Your task to perform on an android device: turn on sleep mode Image 0: 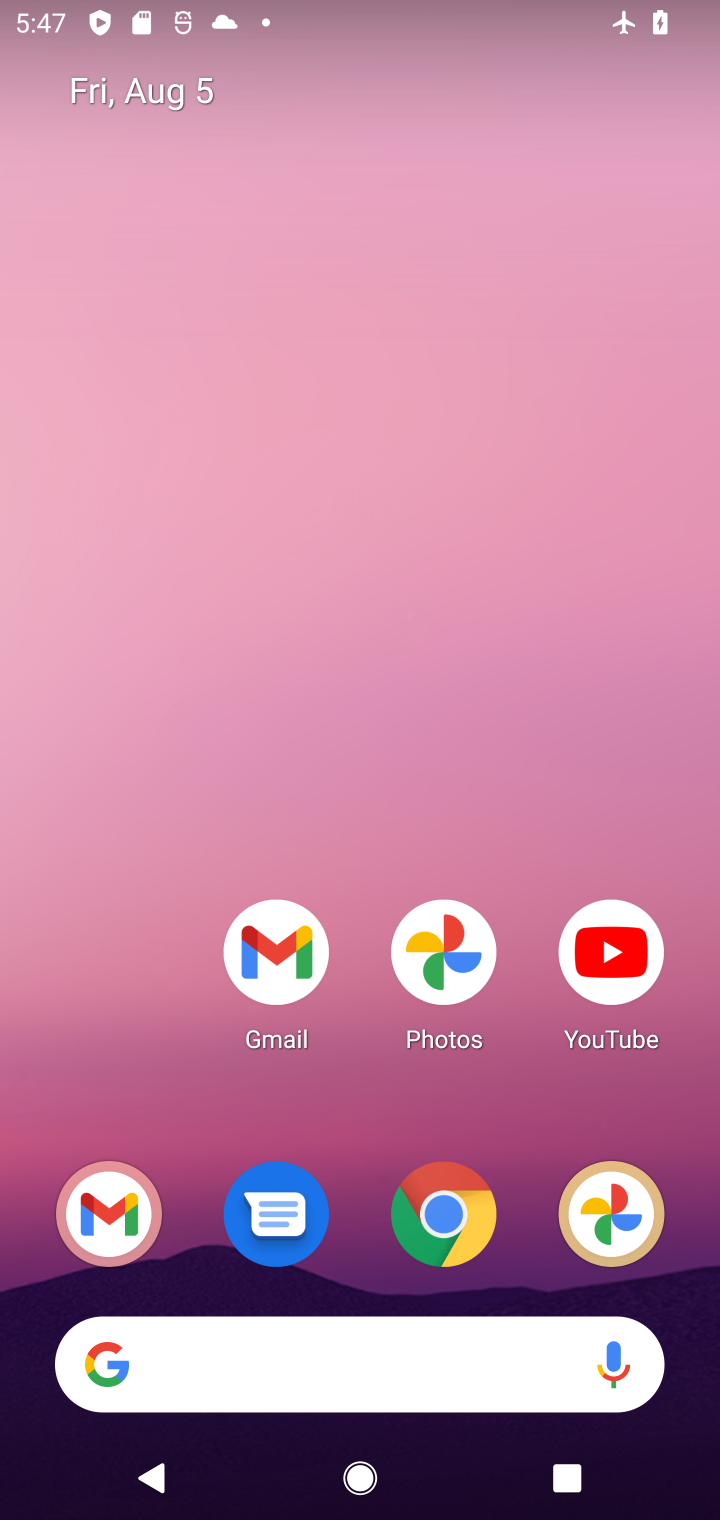
Step 0: drag from (129, 1074) to (357, 20)
Your task to perform on an android device: turn on sleep mode Image 1: 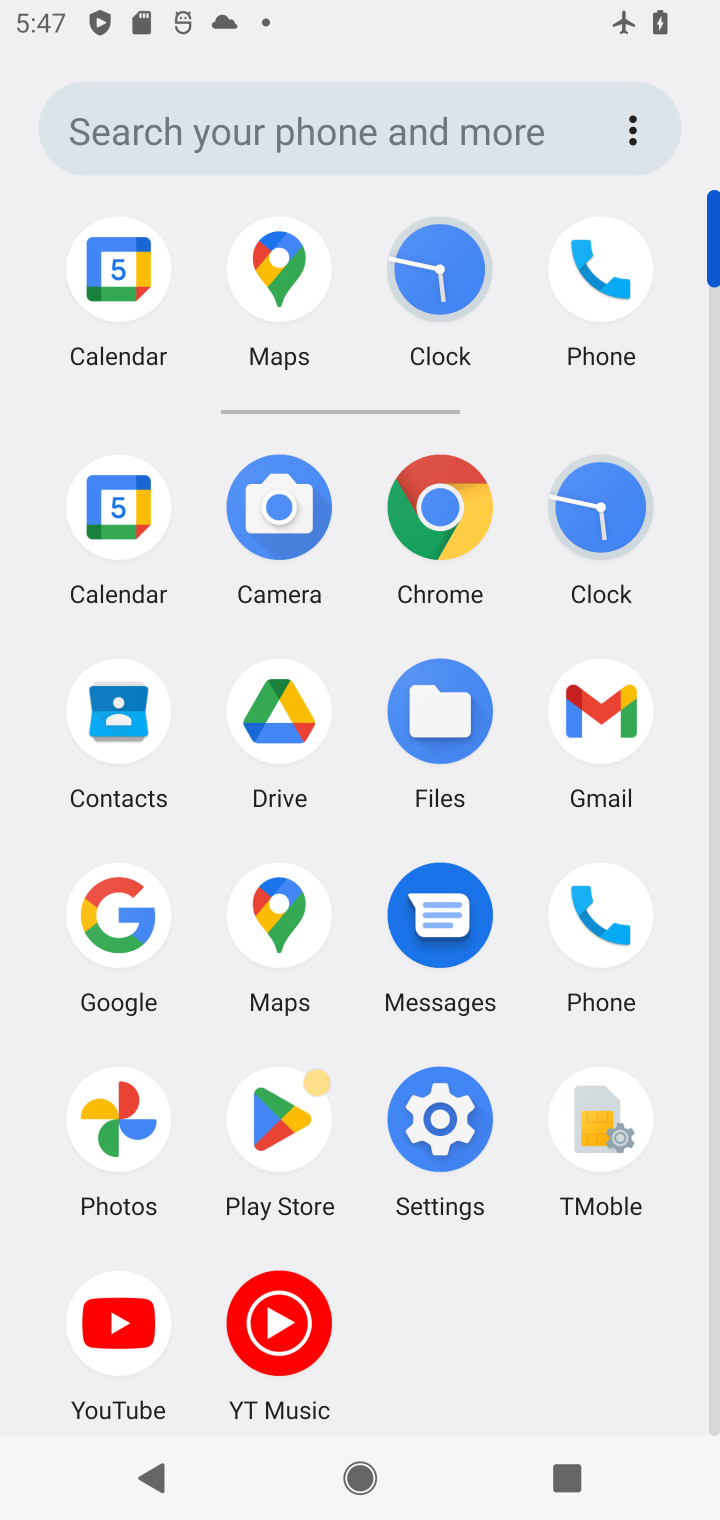
Step 1: click (442, 1101)
Your task to perform on an android device: turn on sleep mode Image 2: 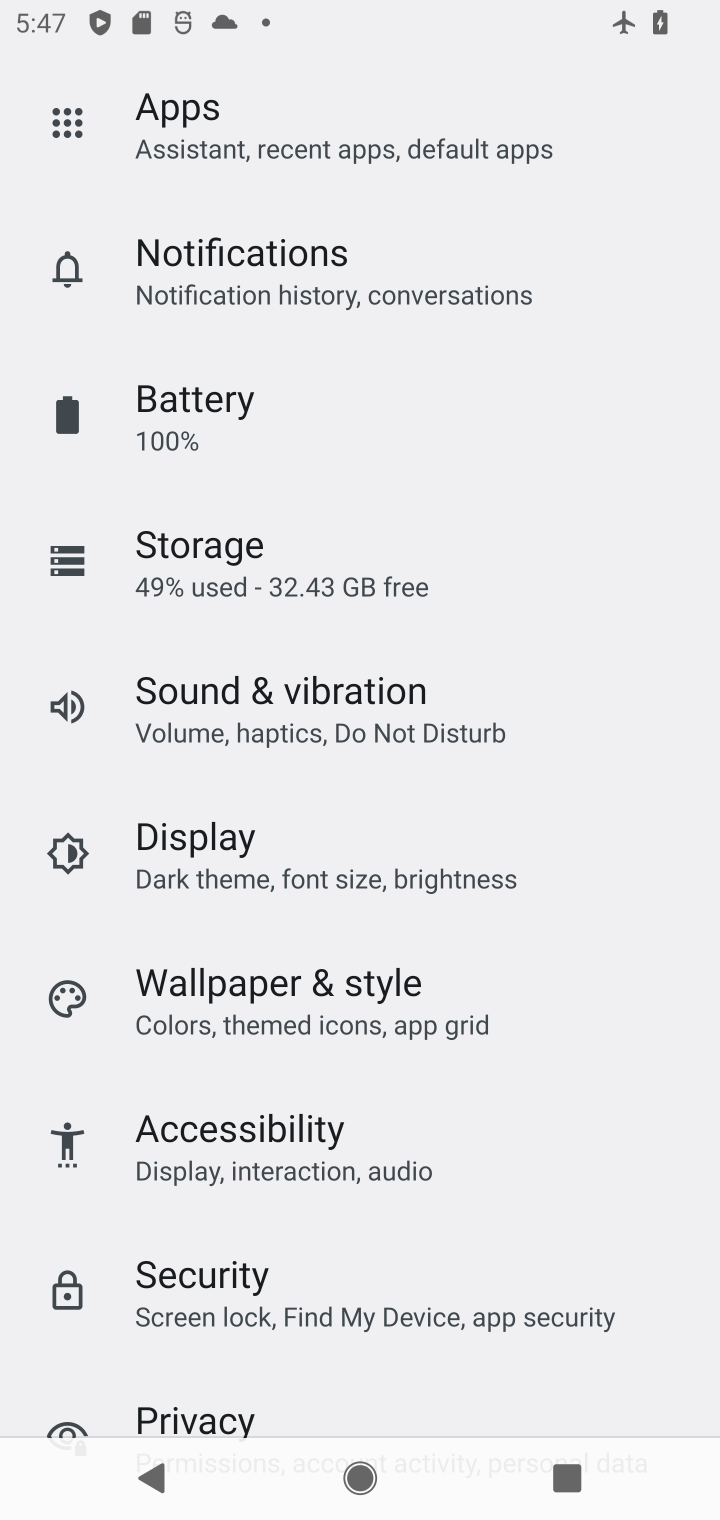
Step 2: click (437, 699)
Your task to perform on an android device: turn on sleep mode Image 3: 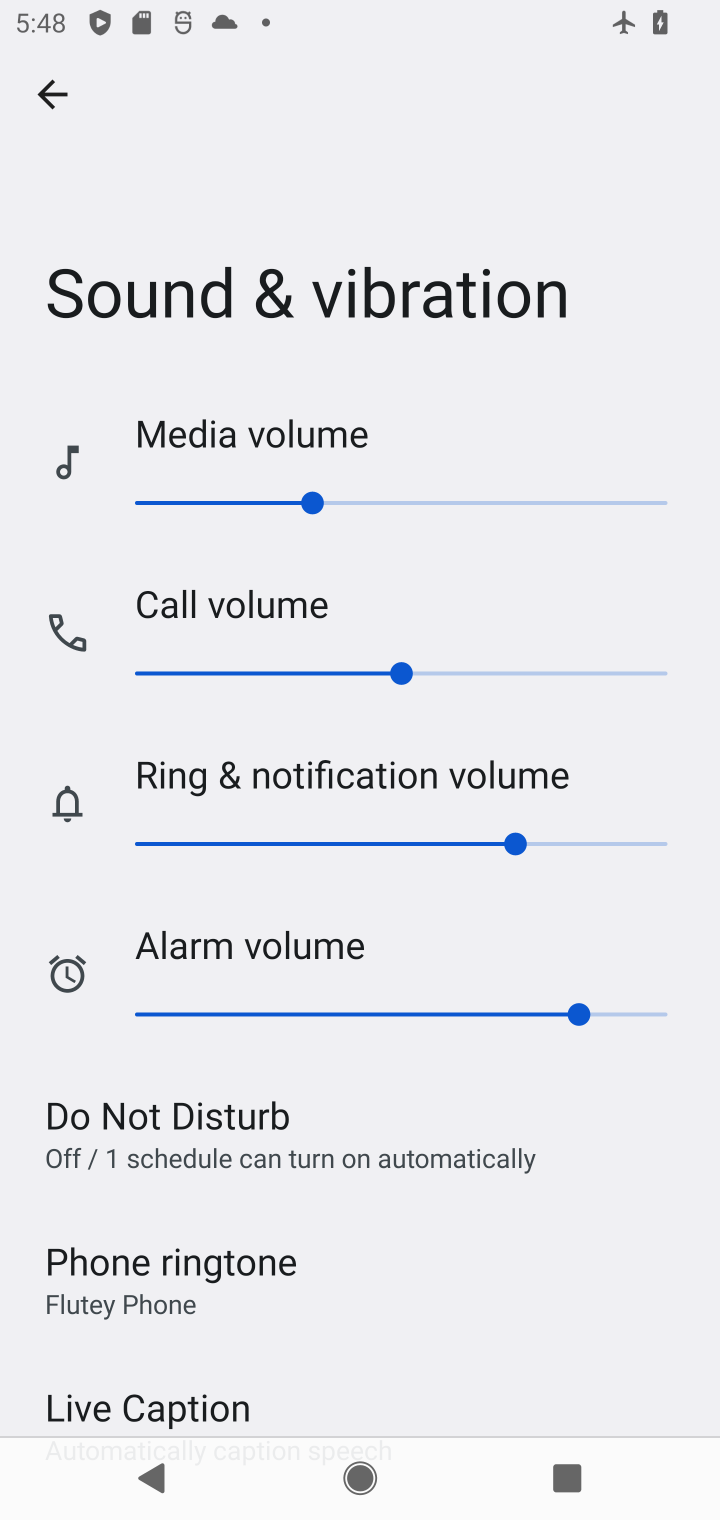
Step 3: click (248, 1142)
Your task to perform on an android device: turn on sleep mode Image 4: 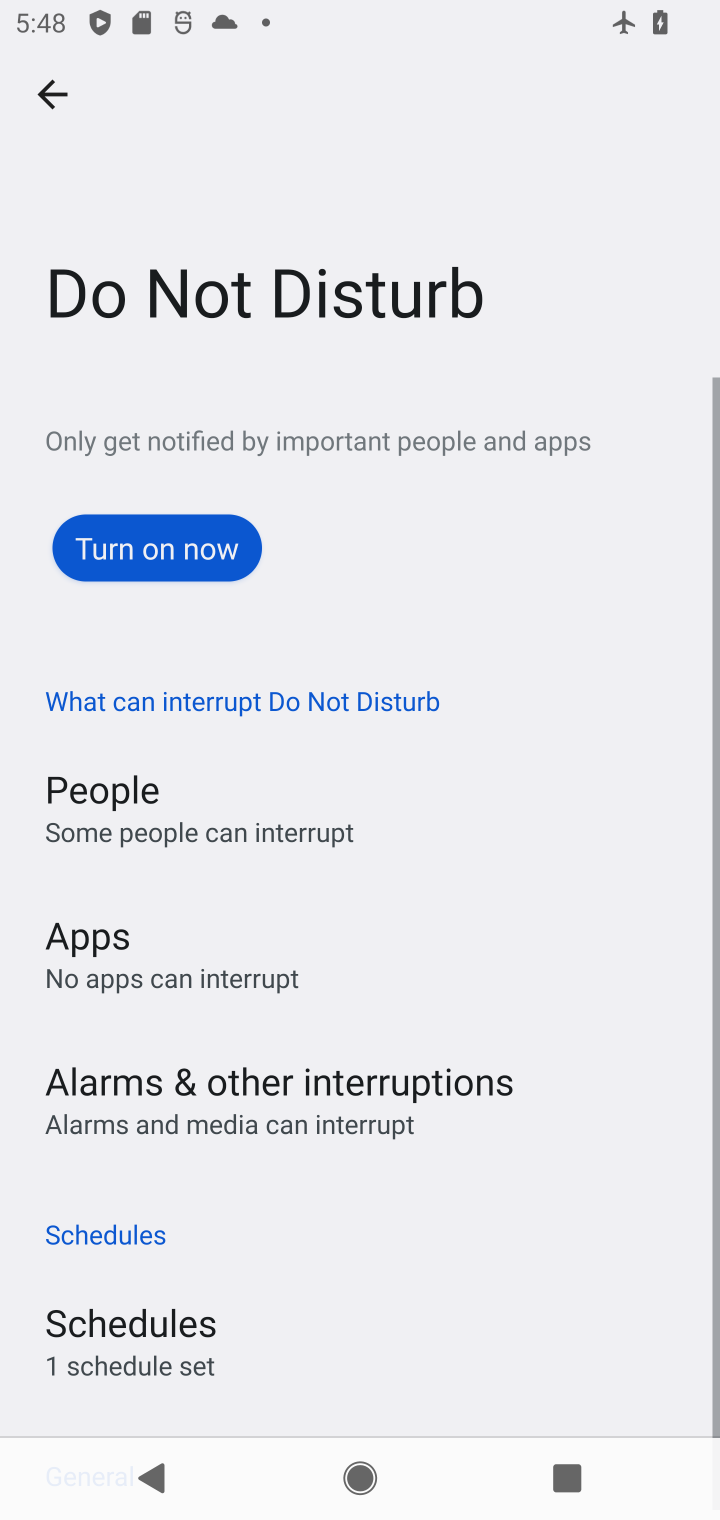
Step 4: click (200, 533)
Your task to perform on an android device: turn on sleep mode Image 5: 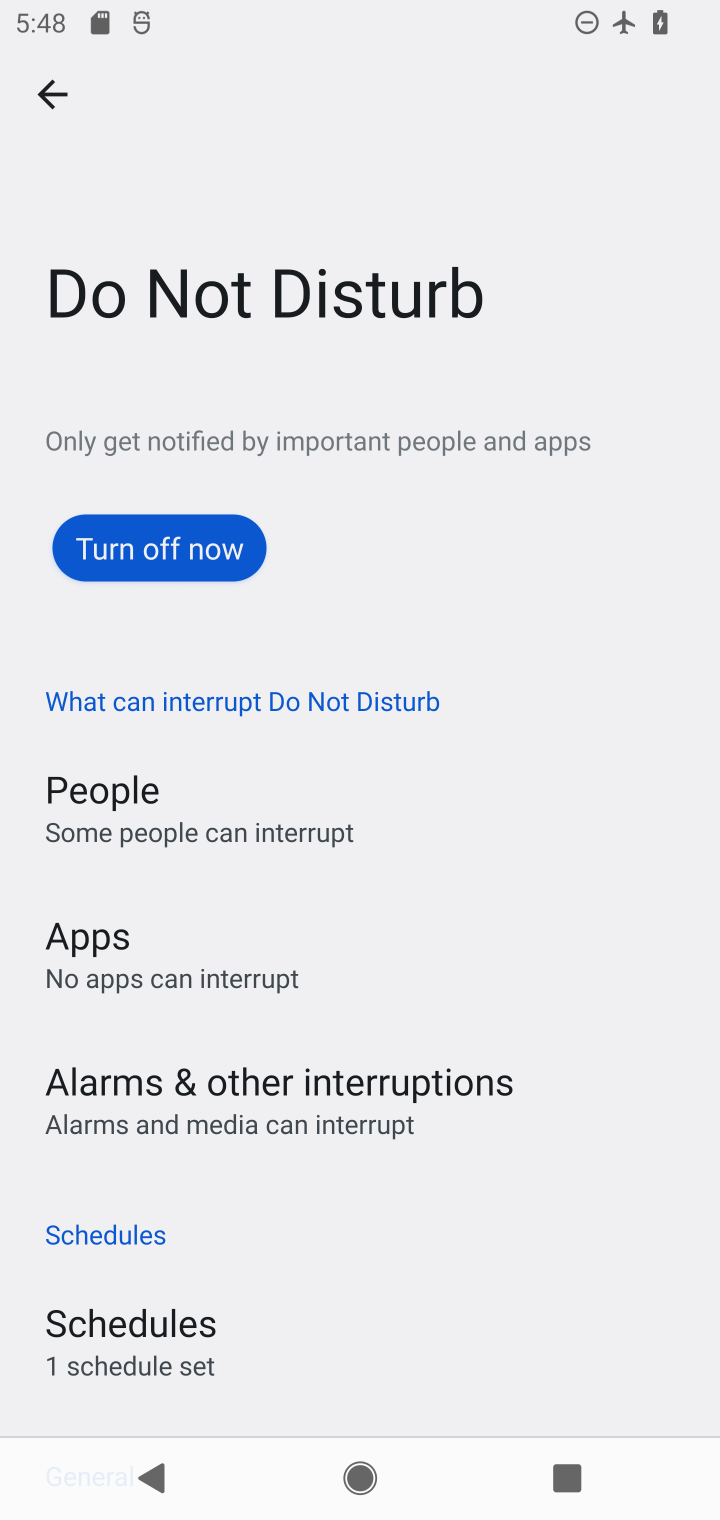
Step 5: task complete